Your task to perform on an android device: turn on the 24-hour format for clock Image 0: 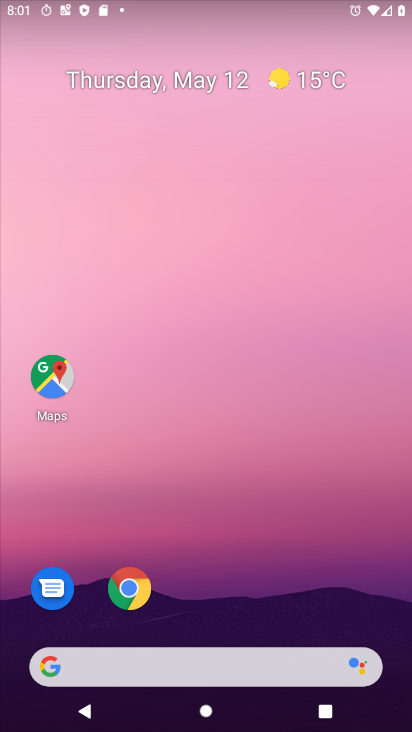
Step 0: drag from (199, 566) to (263, 183)
Your task to perform on an android device: turn on the 24-hour format for clock Image 1: 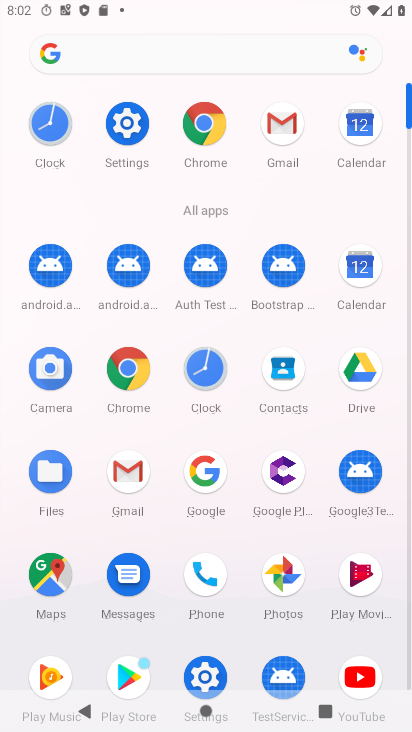
Step 1: click (202, 383)
Your task to perform on an android device: turn on the 24-hour format for clock Image 2: 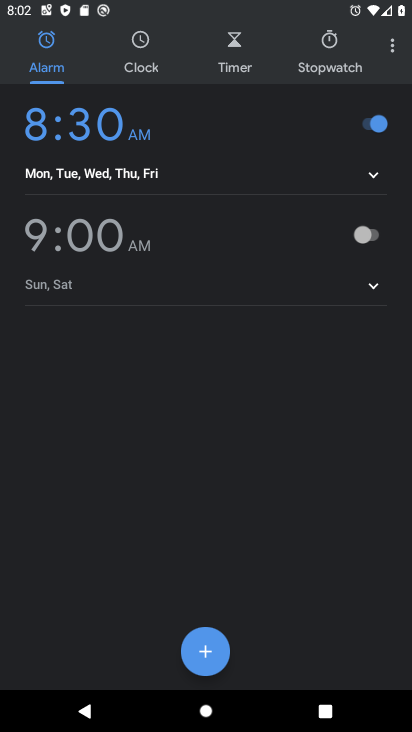
Step 2: click (395, 48)
Your task to perform on an android device: turn on the 24-hour format for clock Image 3: 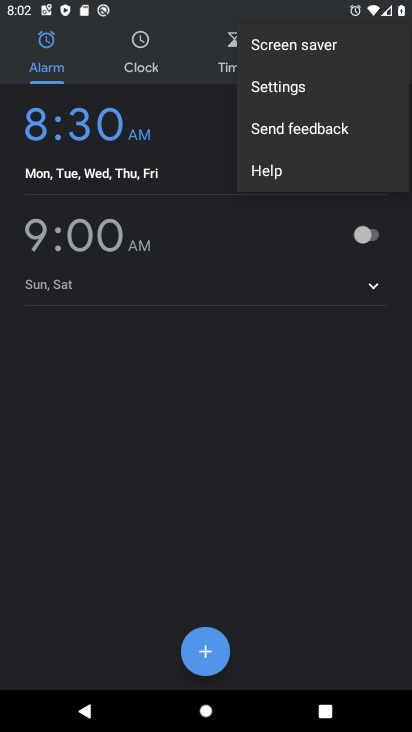
Step 3: click (318, 95)
Your task to perform on an android device: turn on the 24-hour format for clock Image 4: 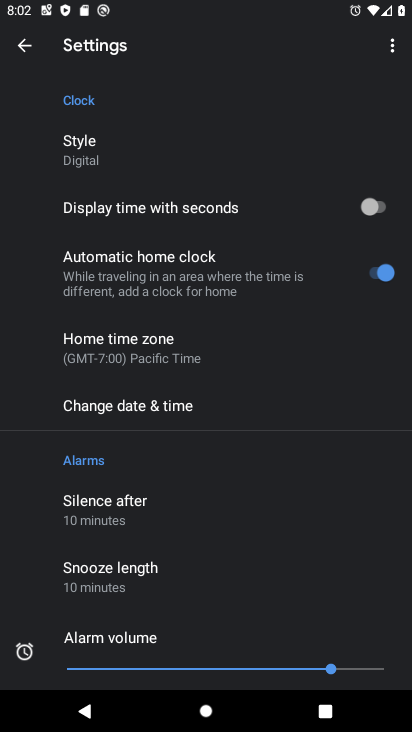
Step 4: drag from (161, 581) to (193, 197)
Your task to perform on an android device: turn on the 24-hour format for clock Image 5: 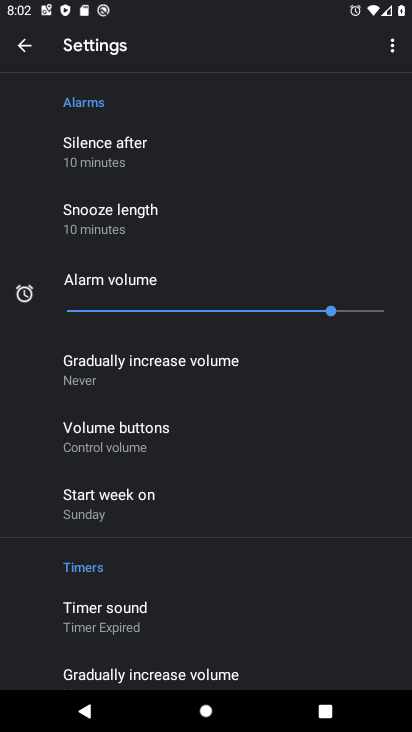
Step 5: drag from (213, 554) to (274, 687)
Your task to perform on an android device: turn on the 24-hour format for clock Image 6: 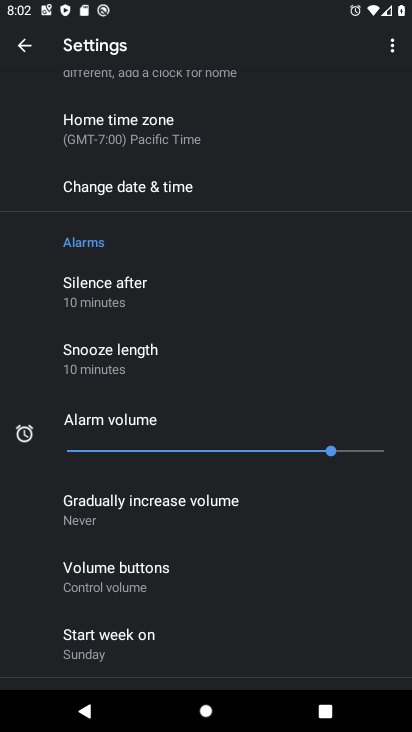
Step 6: drag from (226, 213) to (241, 391)
Your task to perform on an android device: turn on the 24-hour format for clock Image 7: 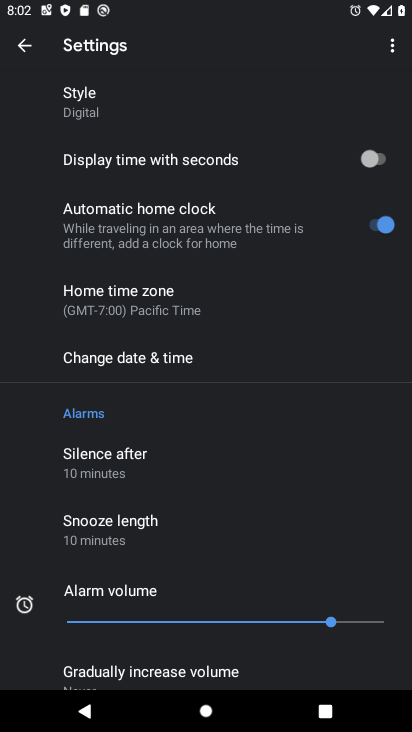
Step 7: click (129, 359)
Your task to perform on an android device: turn on the 24-hour format for clock Image 8: 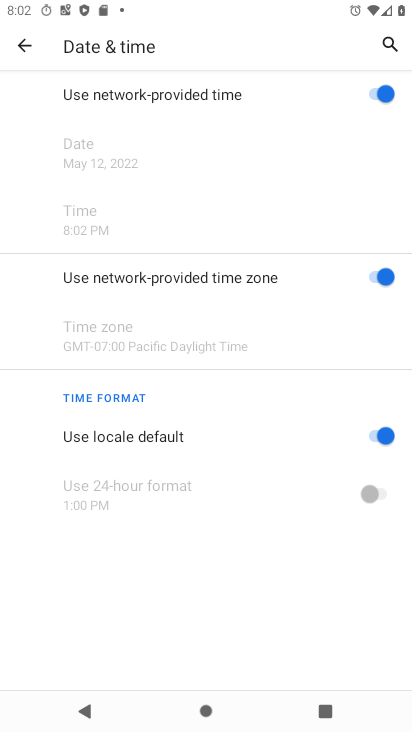
Step 8: click (382, 443)
Your task to perform on an android device: turn on the 24-hour format for clock Image 9: 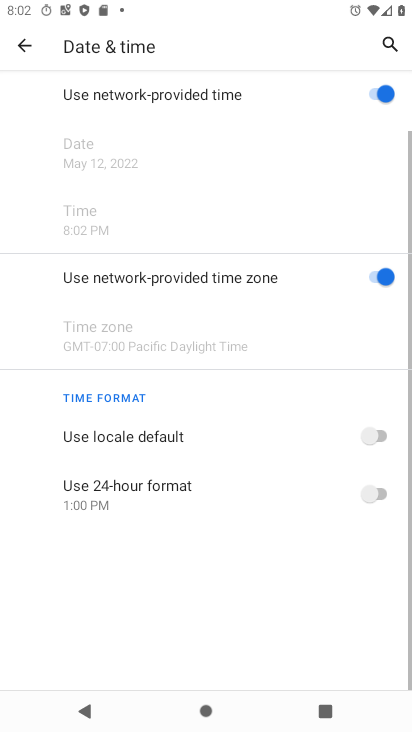
Step 9: click (375, 497)
Your task to perform on an android device: turn on the 24-hour format for clock Image 10: 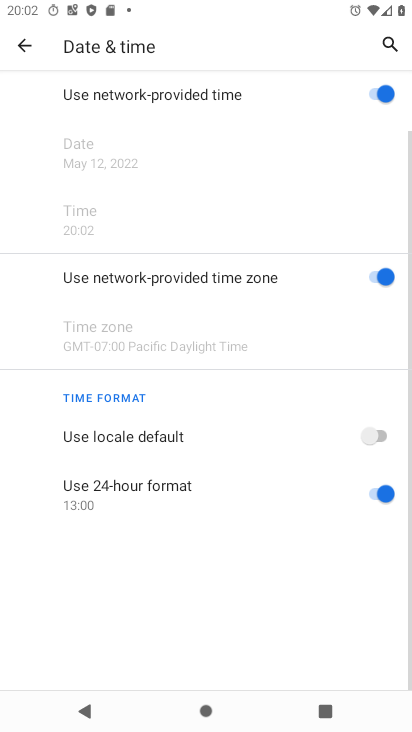
Step 10: task complete